Your task to perform on an android device: change the clock display to analog Image 0: 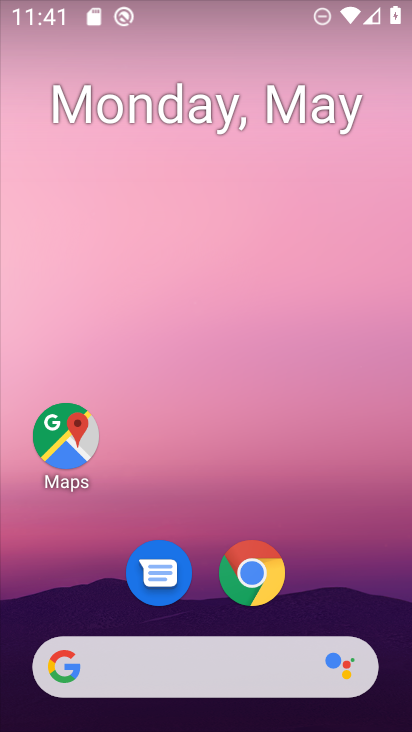
Step 0: drag from (282, 282) to (225, 35)
Your task to perform on an android device: change the clock display to analog Image 1: 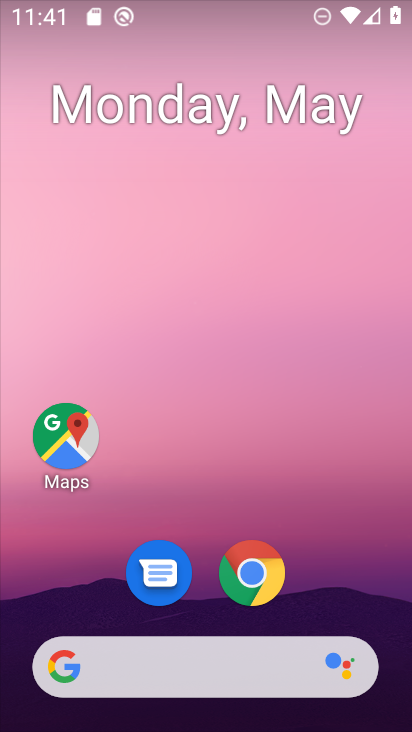
Step 1: drag from (359, 593) to (226, 63)
Your task to perform on an android device: change the clock display to analog Image 2: 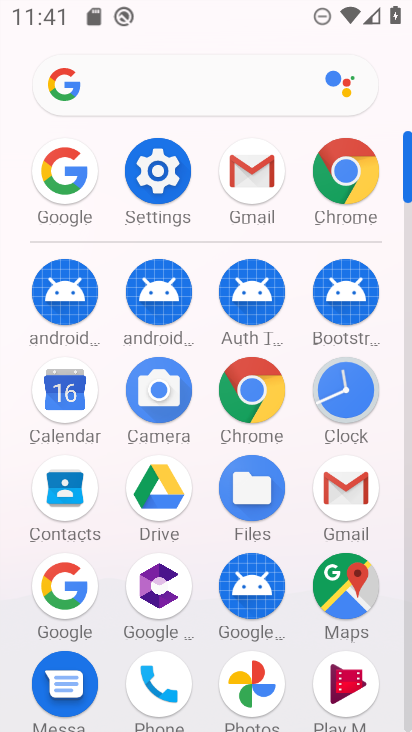
Step 2: click (365, 400)
Your task to perform on an android device: change the clock display to analog Image 3: 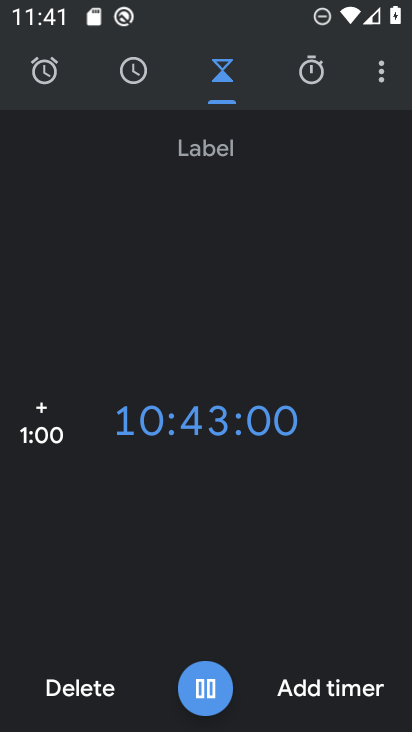
Step 3: click (367, 75)
Your task to perform on an android device: change the clock display to analog Image 4: 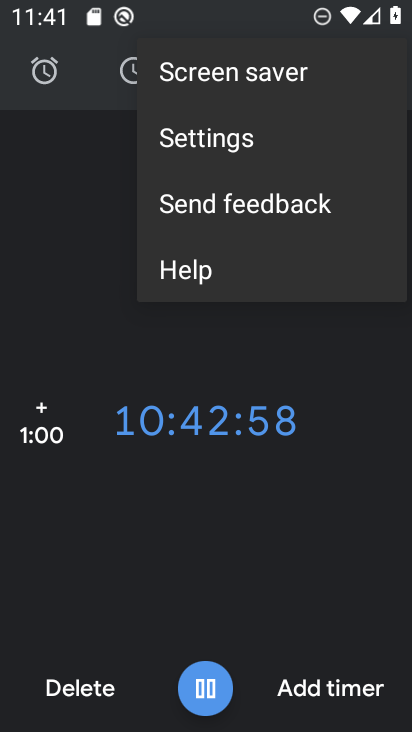
Step 4: click (212, 146)
Your task to perform on an android device: change the clock display to analog Image 5: 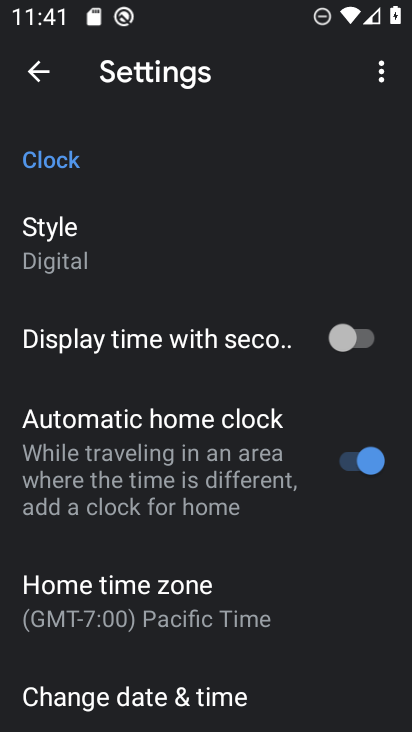
Step 5: click (115, 246)
Your task to perform on an android device: change the clock display to analog Image 6: 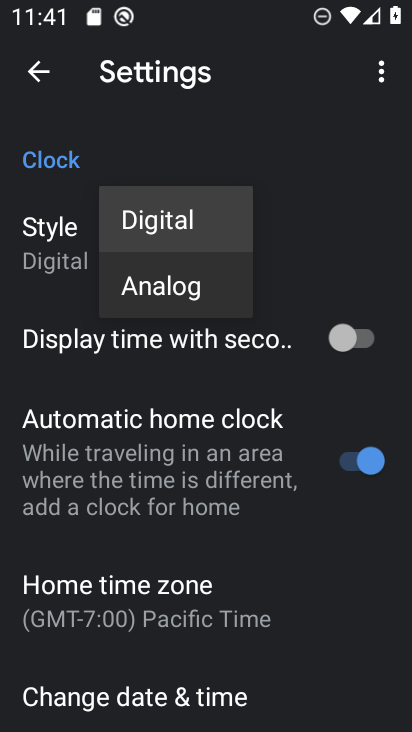
Step 6: click (168, 290)
Your task to perform on an android device: change the clock display to analog Image 7: 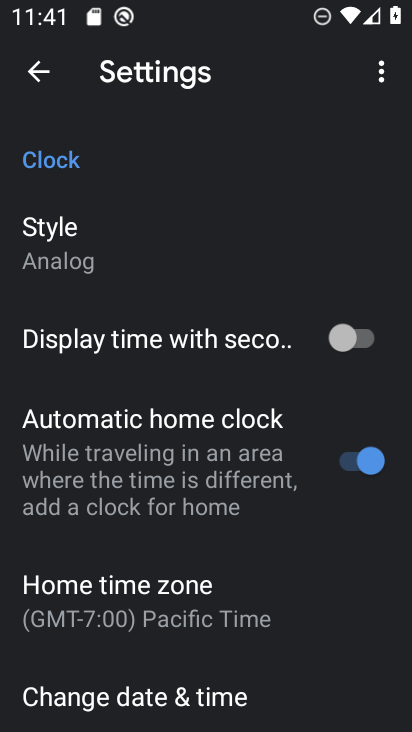
Step 7: task complete